Your task to perform on an android device: set default search engine in the chrome app Image 0: 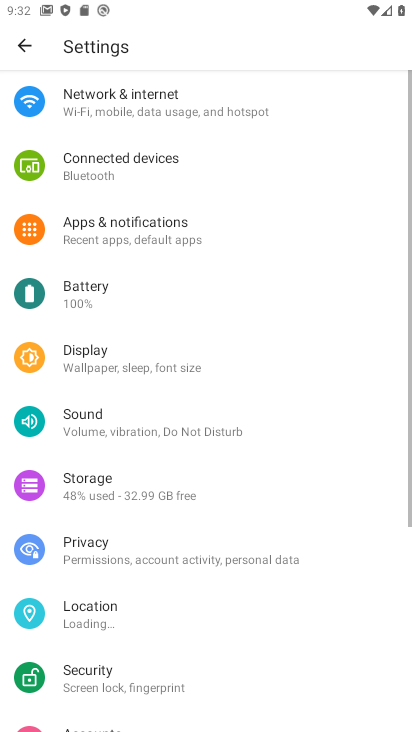
Step 0: press home button
Your task to perform on an android device: set default search engine in the chrome app Image 1: 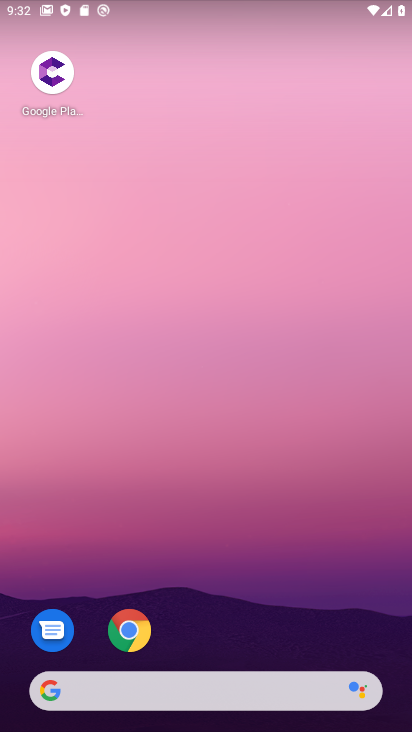
Step 1: click (144, 628)
Your task to perform on an android device: set default search engine in the chrome app Image 2: 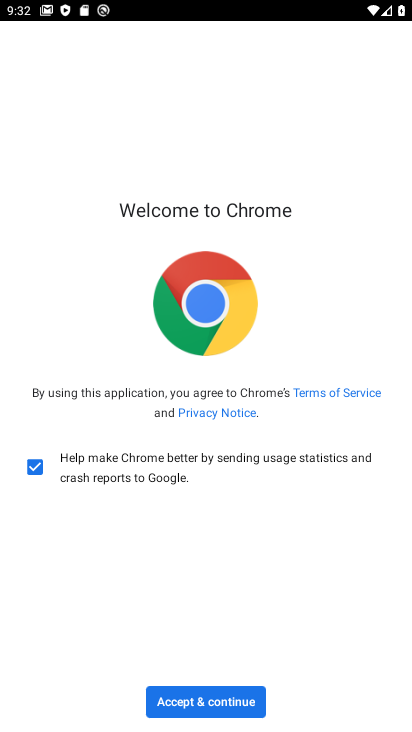
Step 2: click (179, 684)
Your task to perform on an android device: set default search engine in the chrome app Image 3: 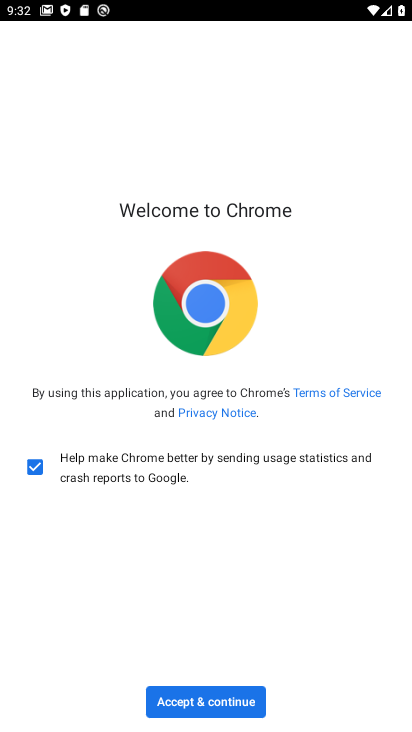
Step 3: click (189, 696)
Your task to perform on an android device: set default search engine in the chrome app Image 4: 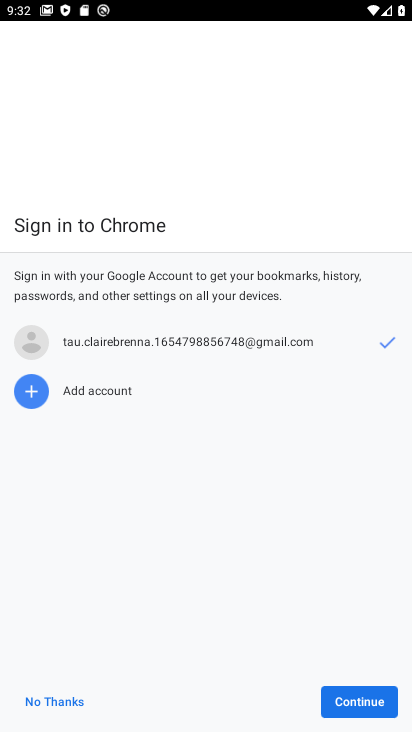
Step 4: click (383, 703)
Your task to perform on an android device: set default search engine in the chrome app Image 5: 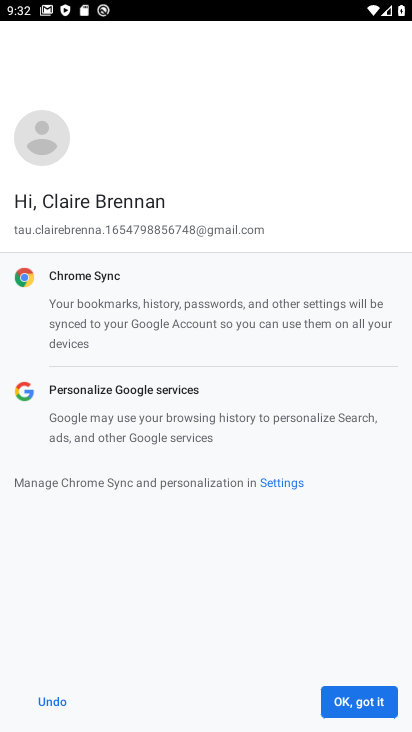
Step 5: click (383, 703)
Your task to perform on an android device: set default search engine in the chrome app Image 6: 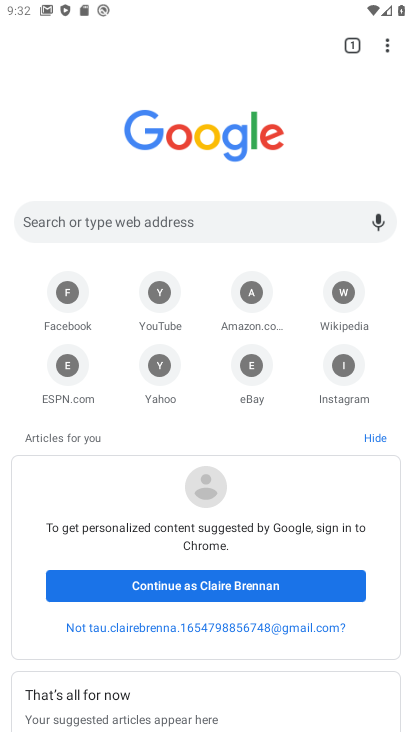
Step 6: click (383, 44)
Your task to perform on an android device: set default search engine in the chrome app Image 7: 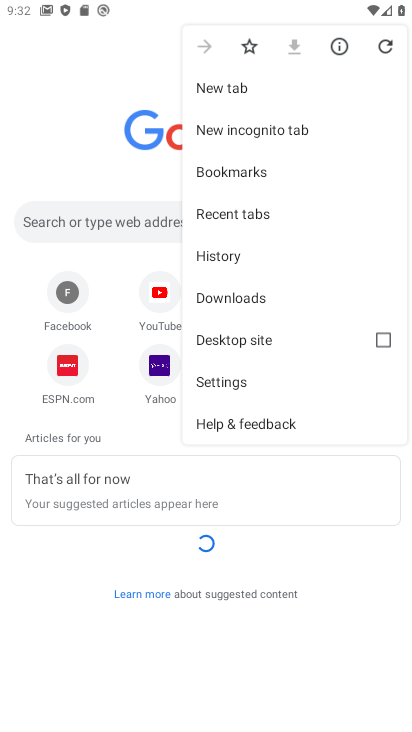
Step 7: click (219, 376)
Your task to perform on an android device: set default search engine in the chrome app Image 8: 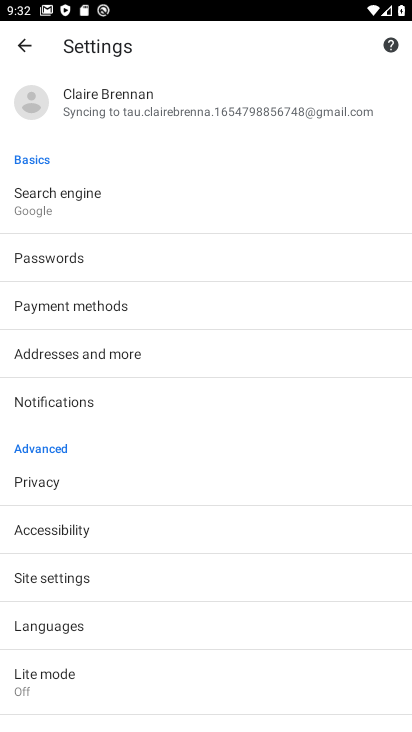
Step 8: click (35, 188)
Your task to perform on an android device: set default search engine in the chrome app Image 9: 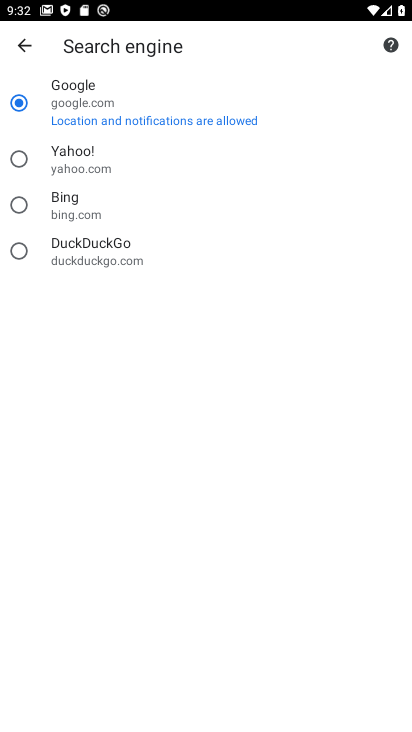
Step 9: click (26, 103)
Your task to perform on an android device: set default search engine in the chrome app Image 10: 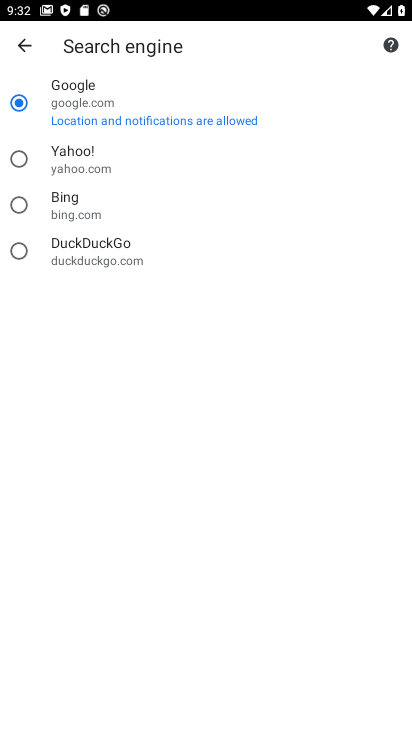
Step 10: task complete